Your task to perform on an android device: Go to Yahoo.com Image 0: 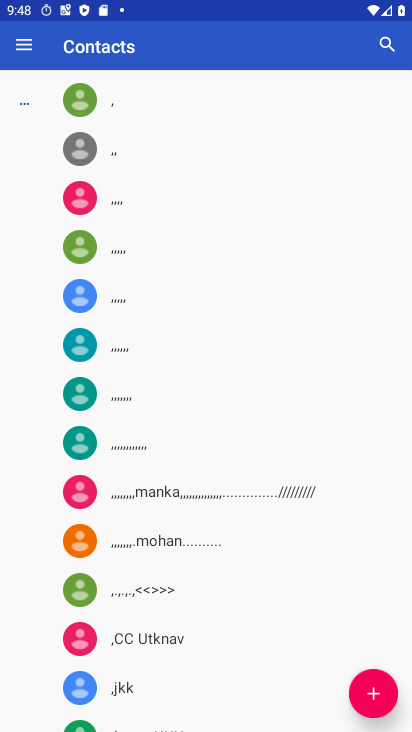
Step 0: press home button
Your task to perform on an android device: Go to Yahoo.com Image 1: 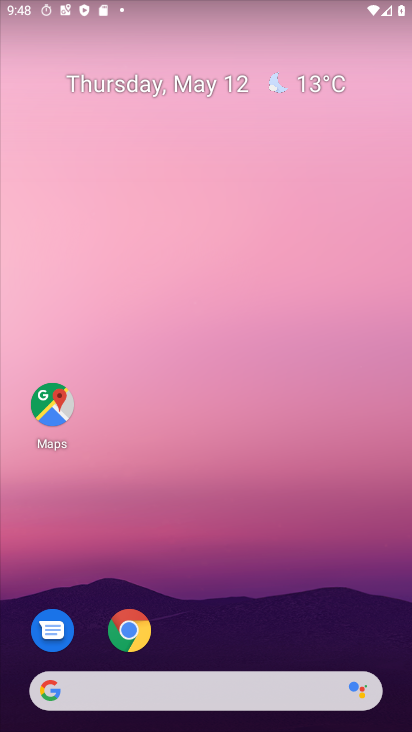
Step 1: click (135, 634)
Your task to perform on an android device: Go to Yahoo.com Image 2: 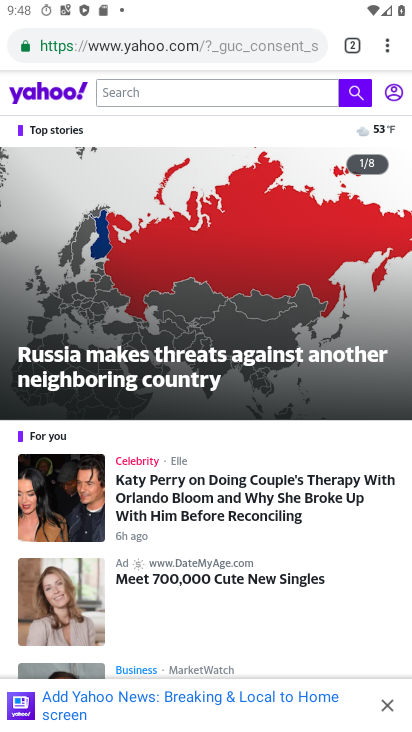
Step 2: task complete